Your task to perform on an android device: star an email in the gmail app Image 0: 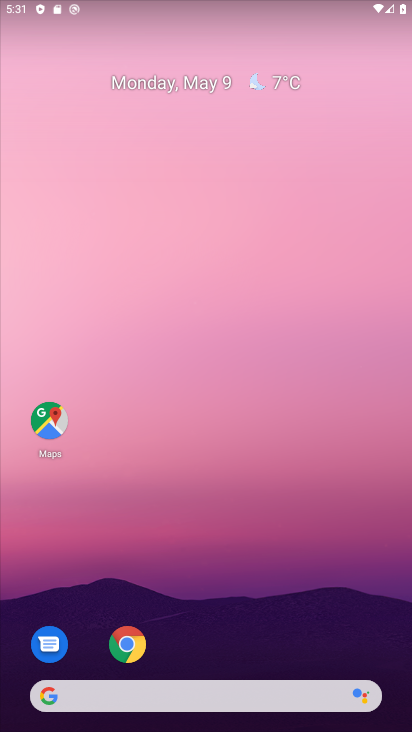
Step 0: drag from (231, 603) to (216, 123)
Your task to perform on an android device: star an email in the gmail app Image 1: 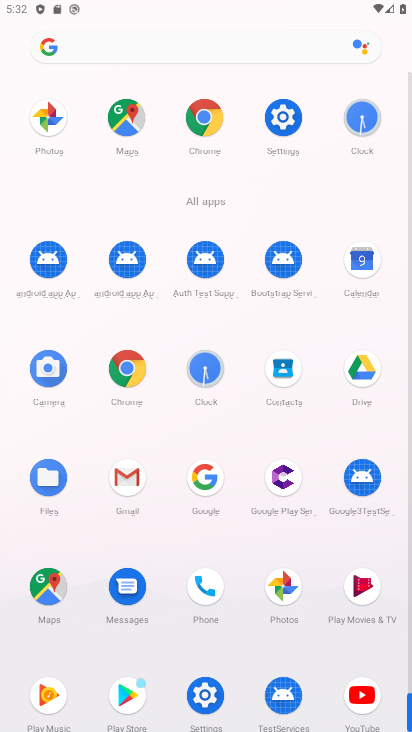
Step 1: click (116, 490)
Your task to perform on an android device: star an email in the gmail app Image 2: 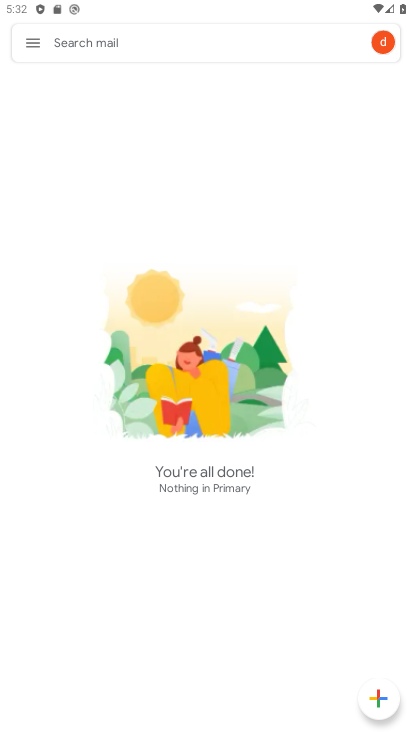
Step 2: click (26, 47)
Your task to perform on an android device: star an email in the gmail app Image 3: 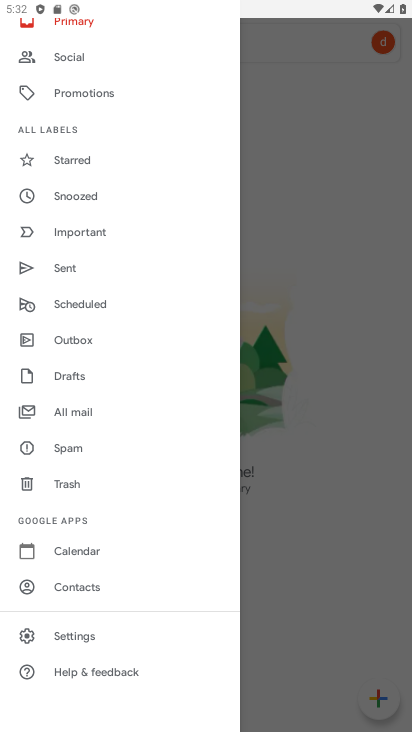
Step 3: click (74, 404)
Your task to perform on an android device: star an email in the gmail app Image 4: 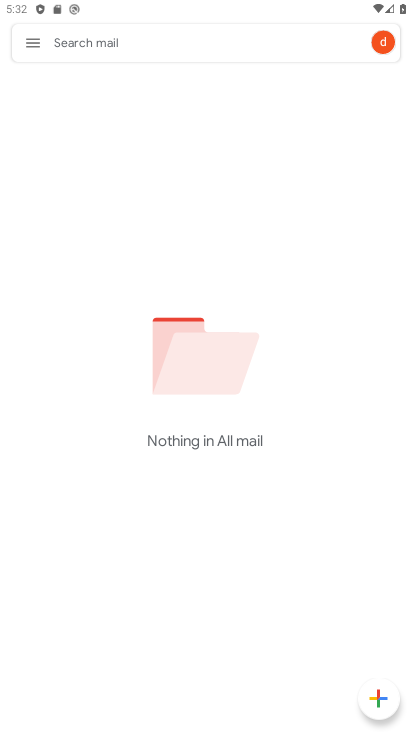
Step 4: task complete